Your task to perform on an android device: move an email to a new category in the gmail app Image 0: 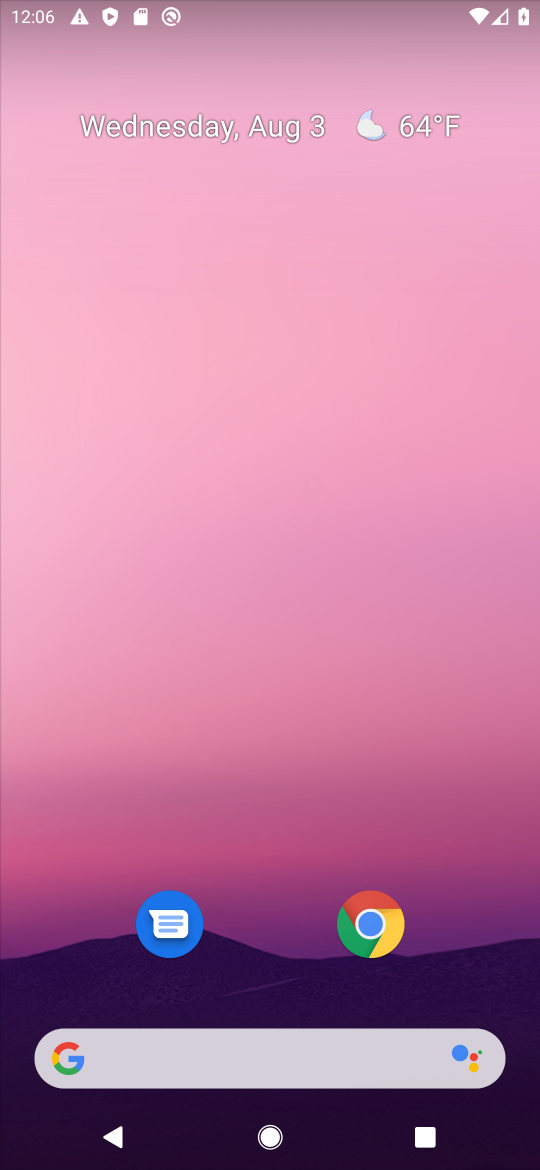
Step 0: drag from (59, 919) to (167, 85)
Your task to perform on an android device: move an email to a new category in the gmail app Image 1: 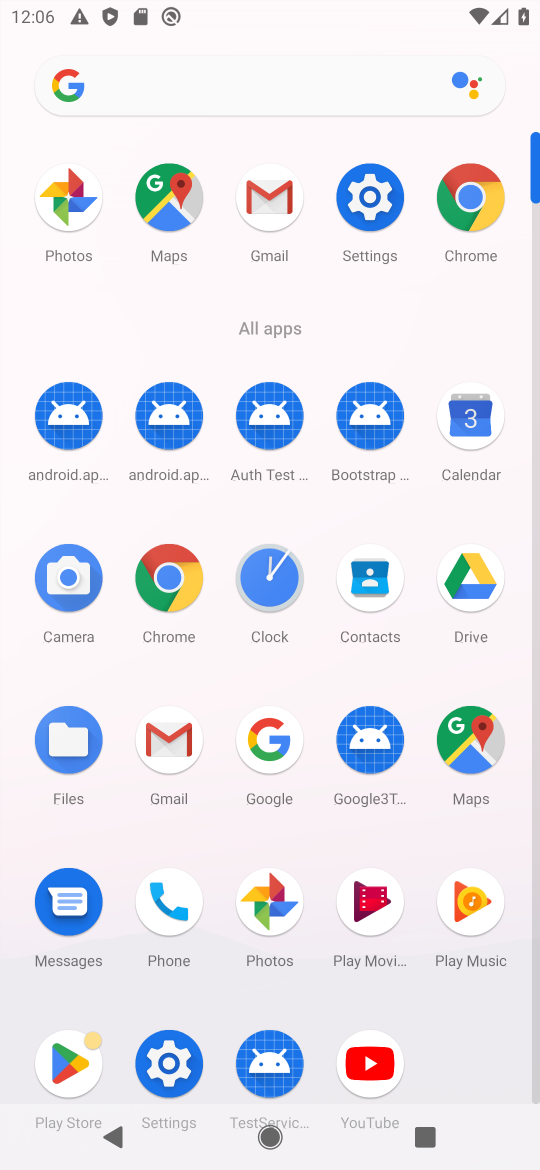
Step 1: click (271, 198)
Your task to perform on an android device: move an email to a new category in the gmail app Image 2: 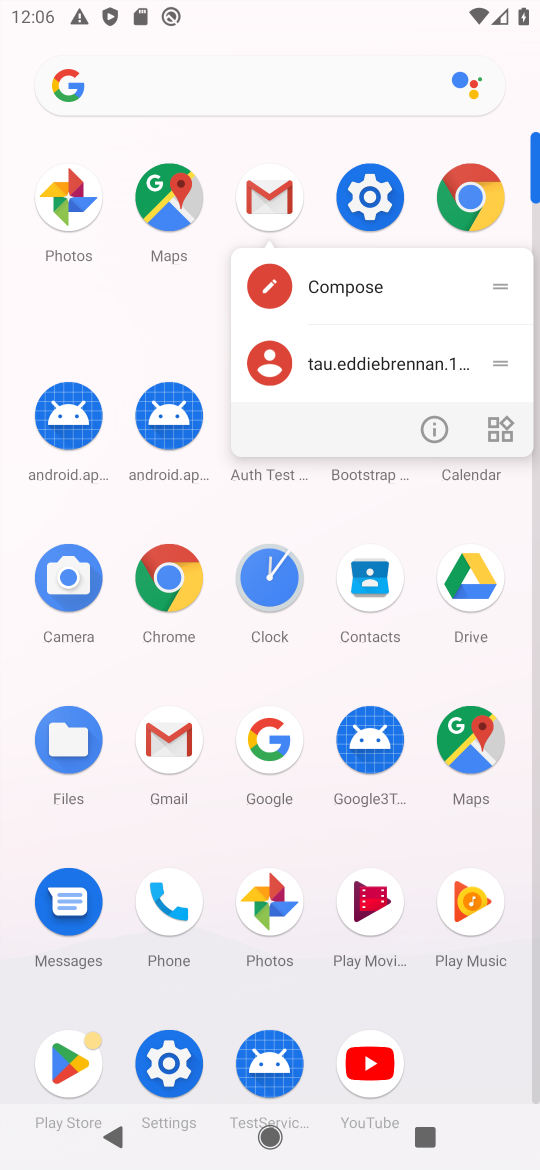
Step 2: click (276, 199)
Your task to perform on an android device: move an email to a new category in the gmail app Image 3: 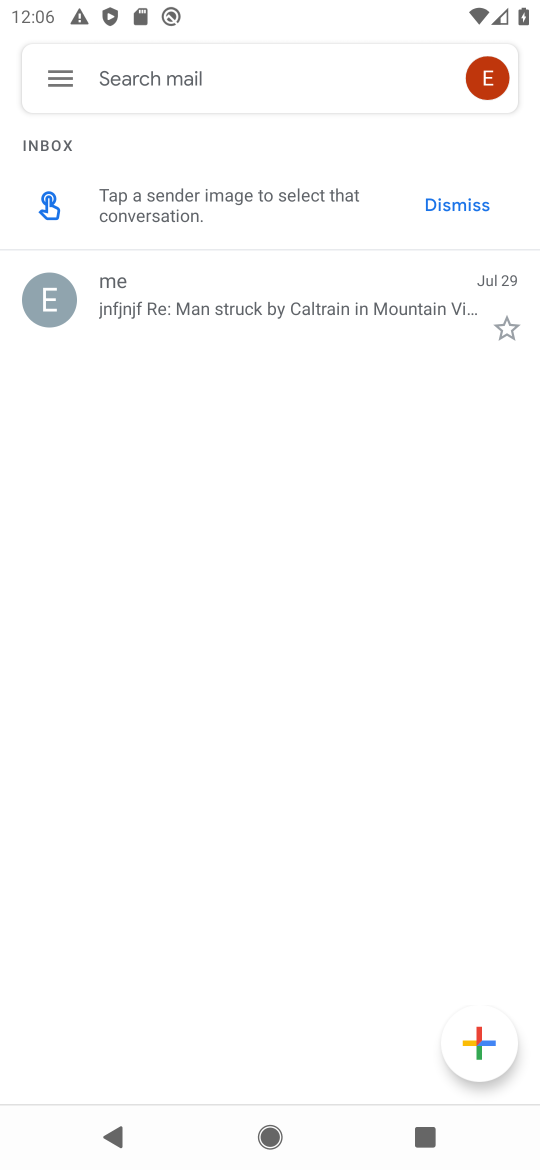
Step 3: click (56, 78)
Your task to perform on an android device: move an email to a new category in the gmail app Image 4: 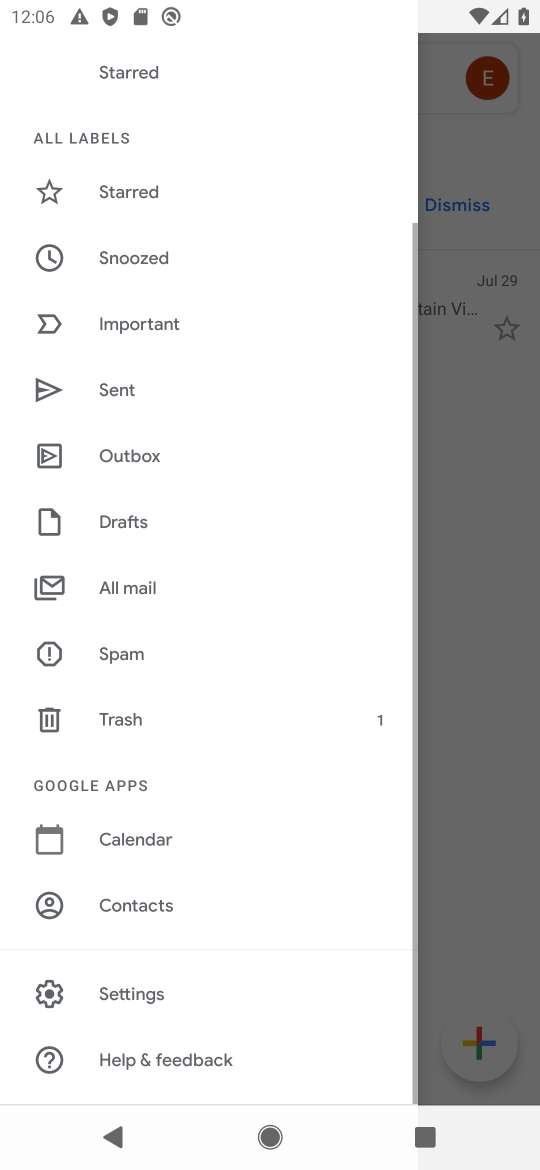
Step 4: click (476, 455)
Your task to perform on an android device: move an email to a new category in the gmail app Image 5: 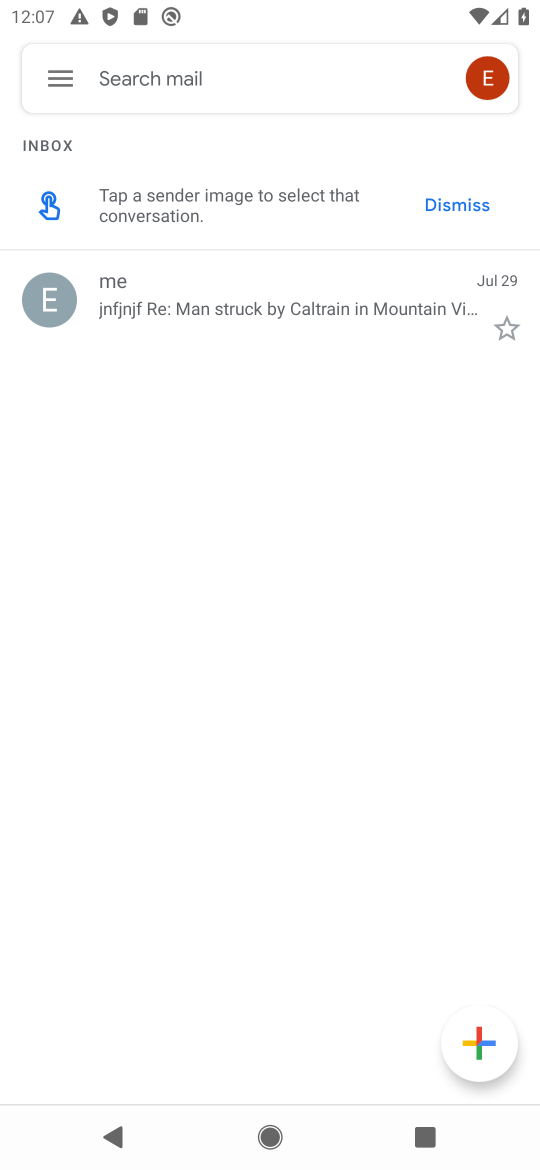
Step 5: click (203, 294)
Your task to perform on an android device: move an email to a new category in the gmail app Image 6: 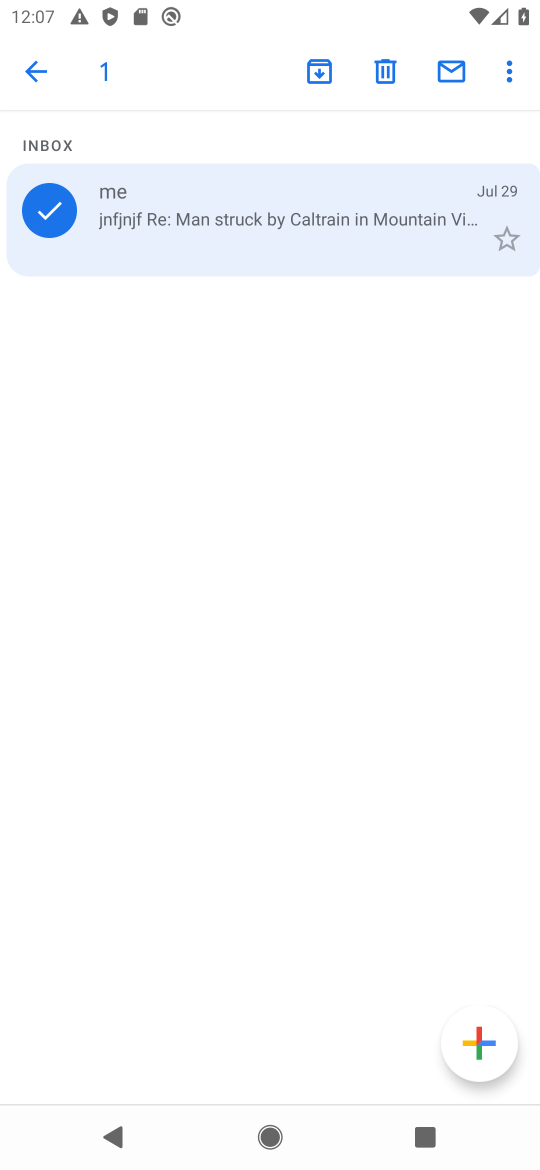
Step 6: click (504, 75)
Your task to perform on an android device: move an email to a new category in the gmail app Image 7: 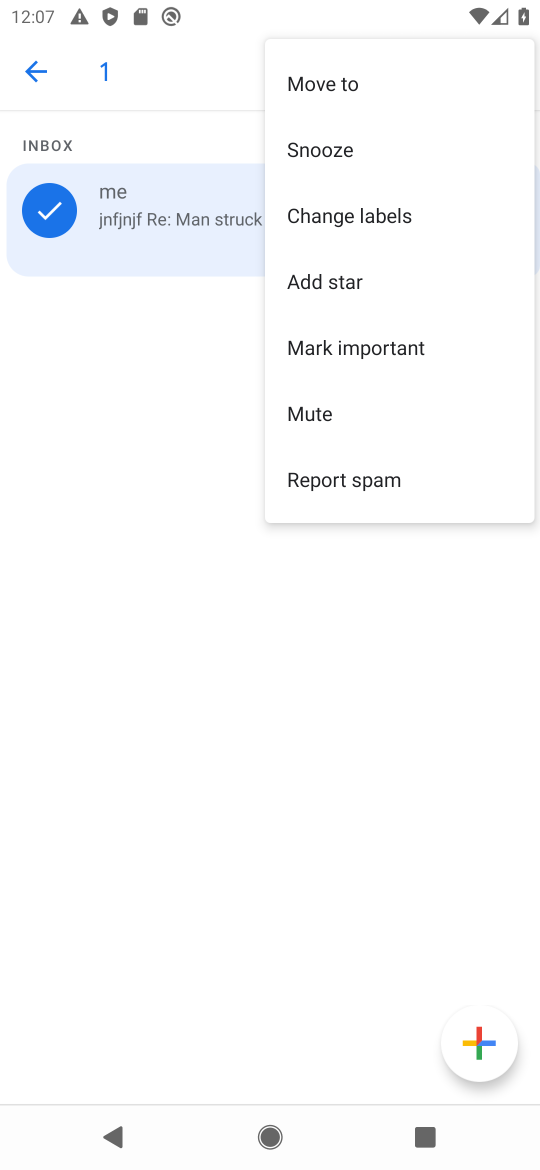
Step 7: click (360, 78)
Your task to perform on an android device: move an email to a new category in the gmail app Image 8: 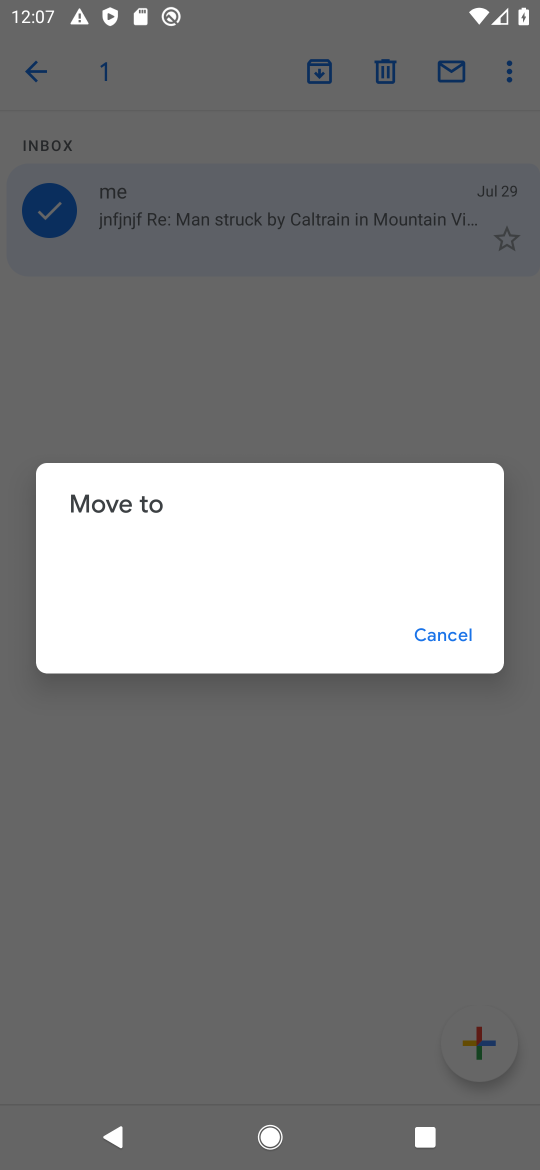
Step 8: click (437, 637)
Your task to perform on an android device: move an email to a new category in the gmail app Image 9: 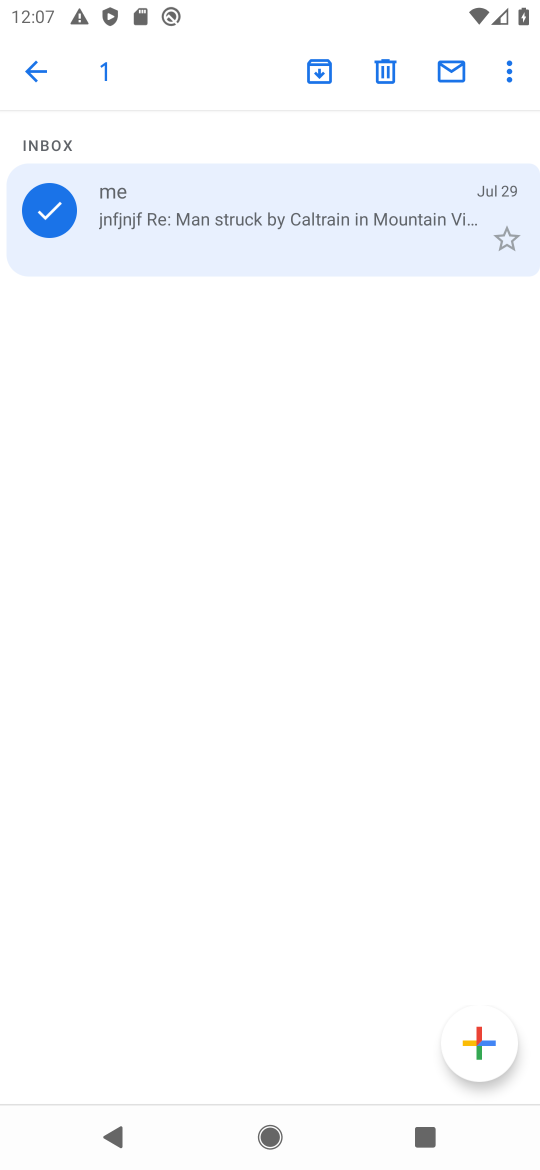
Step 9: task complete